Your task to perform on an android device: turn on notifications settings in the gmail app Image 0: 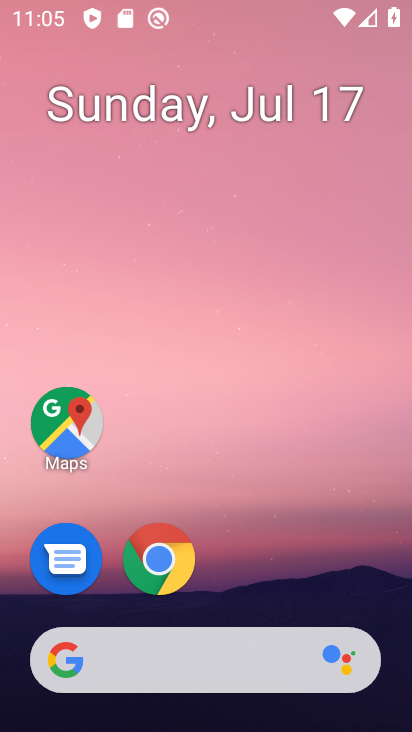
Step 0: press back button
Your task to perform on an android device: turn on notifications settings in the gmail app Image 1: 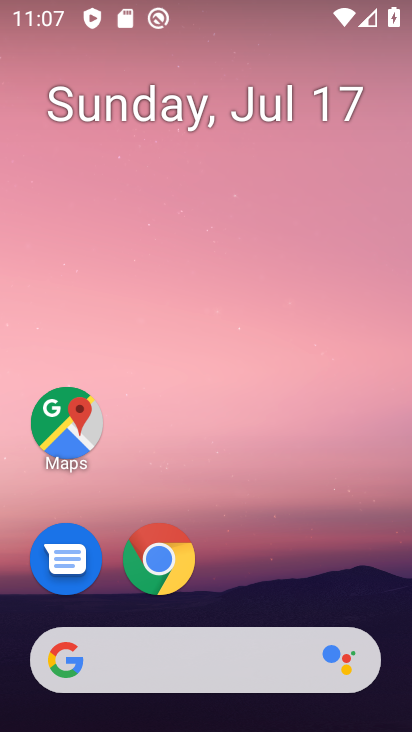
Step 1: drag from (304, 504) to (290, 8)
Your task to perform on an android device: turn on notifications settings in the gmail app Image 2: 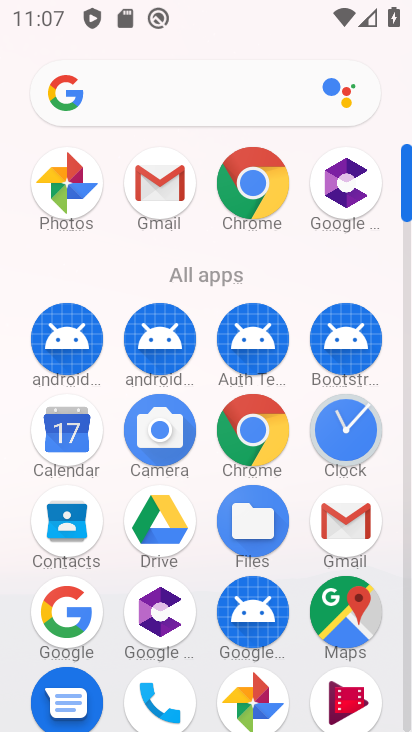
Step 2: click (148, 184)
Your task to perform on an android device: turn on notifications settings in the gmail app Image 3: 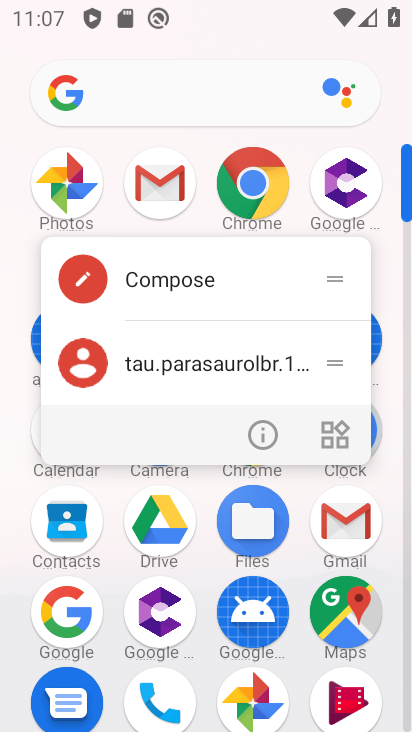
Step 3: click (266, 447)
Your task to perform on an android device: turn on notifications settings in the gmail app Image 4: 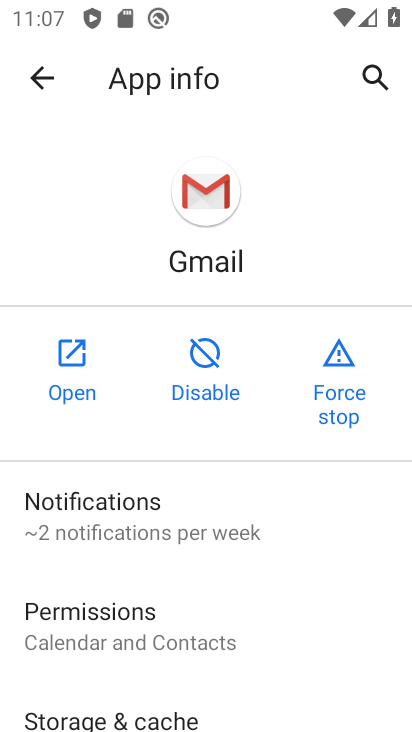
Step 4: click (155, 517)
Your task to perform on an android device: turn on notifications settings in the gmail app Image 5: 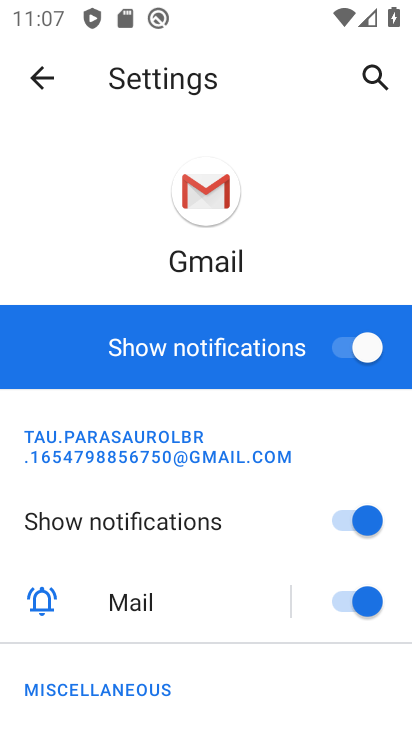
Step 5: task complete